Your task to perform on an android device: turn on improve location accuracy Image 0: 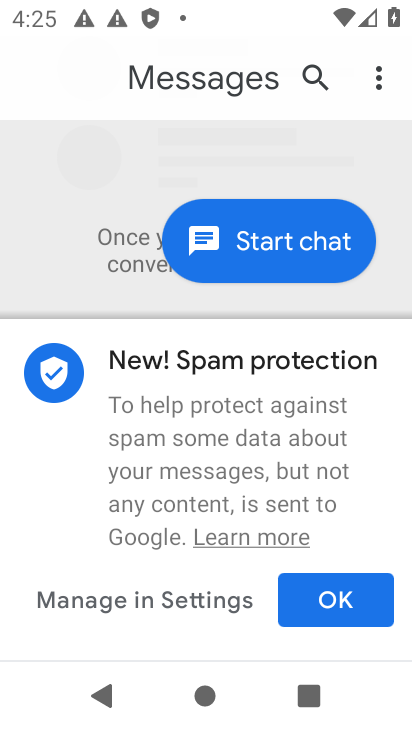
Step 0: press home button
Your task to perform on an android device: turn on improve location accuracy Image 1: 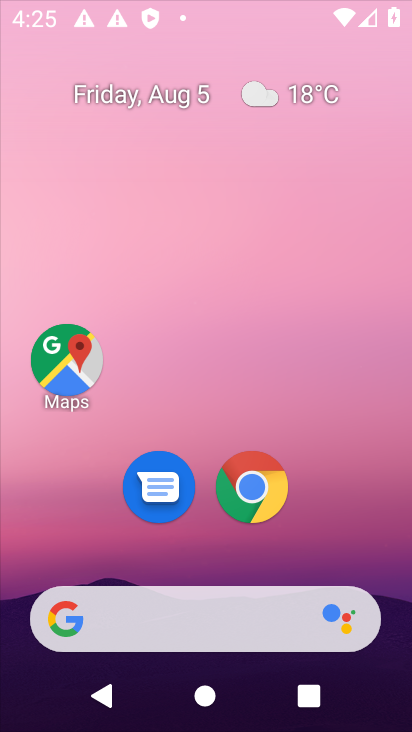
Step 1: drag from (240, 374) to (264, 254)
Your task to perform on an android device: turn on improve location accuracy Image 2: 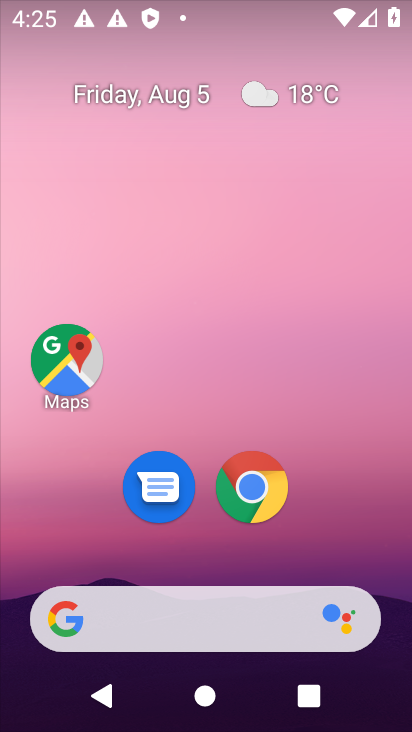
Step 2: drag from (321, 357) to (304, 209)
Your task to perform on an android device: turn on improve location accuracy Image 3: 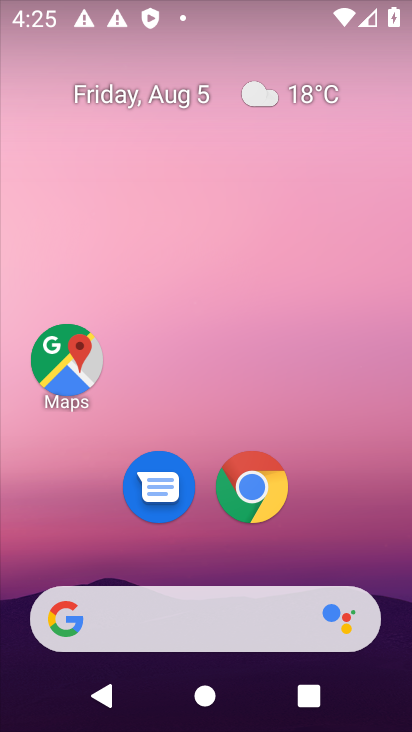
Step 3: drag from (340, 483) to (296, 250)
Your task to perform on an android device: turn on improve location accuracy Image 4: 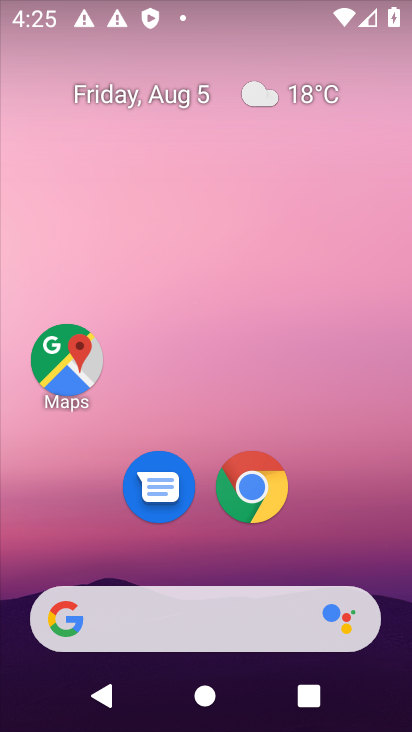
Step 4: drag from (343, 504) to (304, 125)
Your task to perform on an android device: turn on improve location accuracy Image 5: 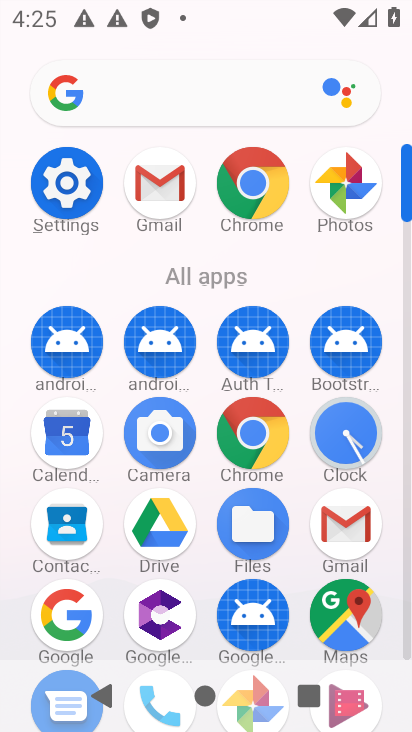
Step 5: drag from (339, 665) to (327, 268)
Your task to perform on an android device: turn on improve location accuracy Image 6: 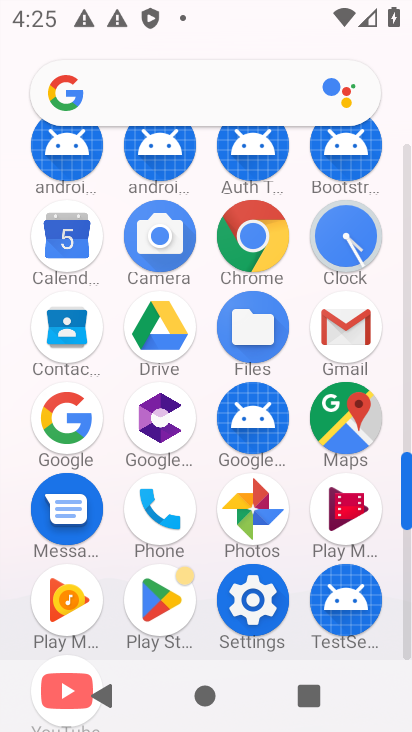
Step 6: click (246, 612)
Your task to perform on an android device: turn on improve location accuracy Image 7: 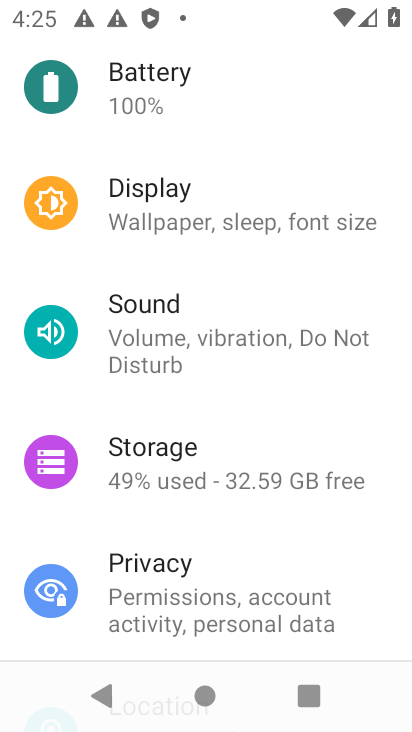
Step 7: click (173, 556)
Your task to perform on an android device: turn on improve location accuracy Image 8: 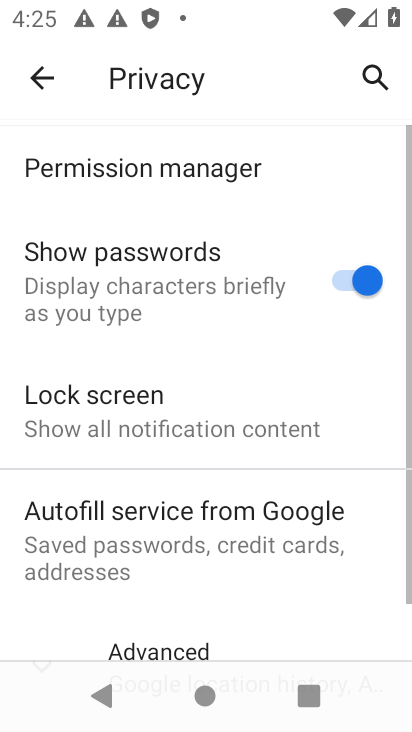
Step 8: task complete